Your task to perform on an android device: What's the weather? Image 0: 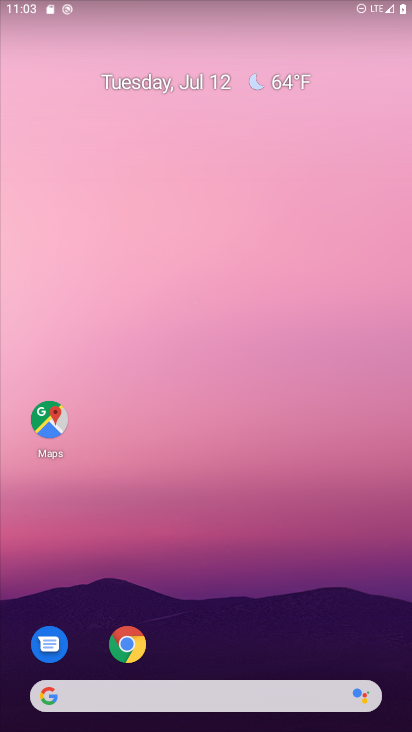
Step 0: click (261, 683)
Your task to perform on an android device: What's the weather? Image 1: 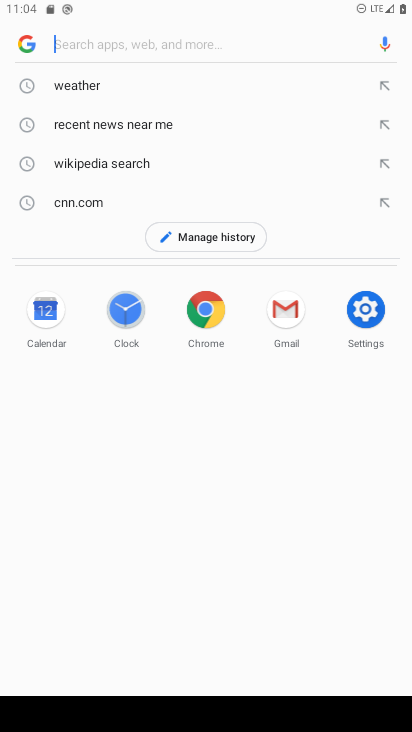
Step 1: click (87, 72)
Your task to perform on an android device: What's the weather? Image 2: 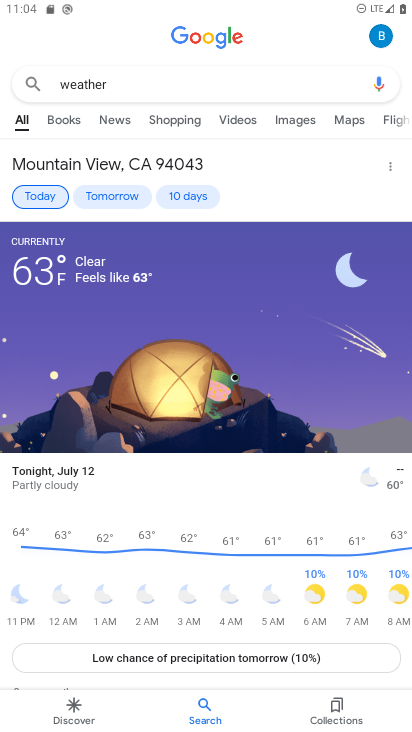
Step 2: task complete